Your task to perform on an android device: Open Google Chrome Image 0: 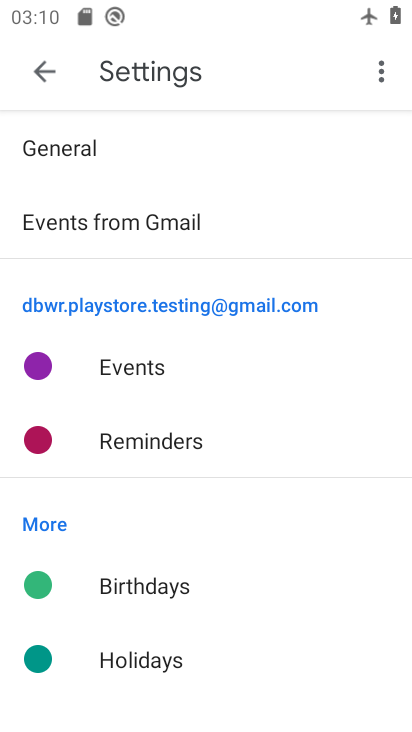
Step 0: press home button
Your task to perform on an android device: Open Google Chrome Image 1: 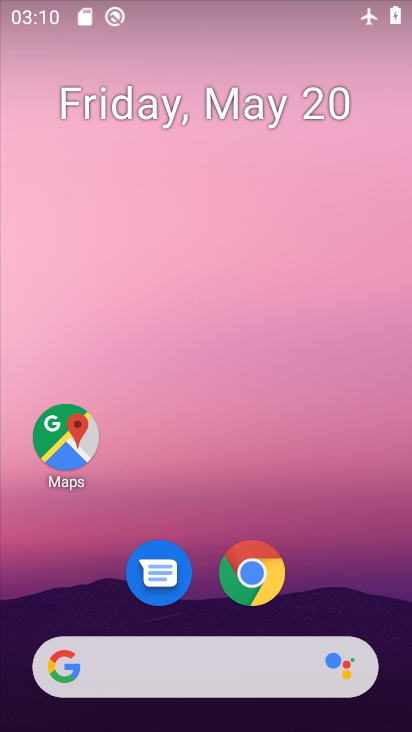
Step 1: click (259, 581)
Your task to perform on an android device: Open Google Chrome Image 2: 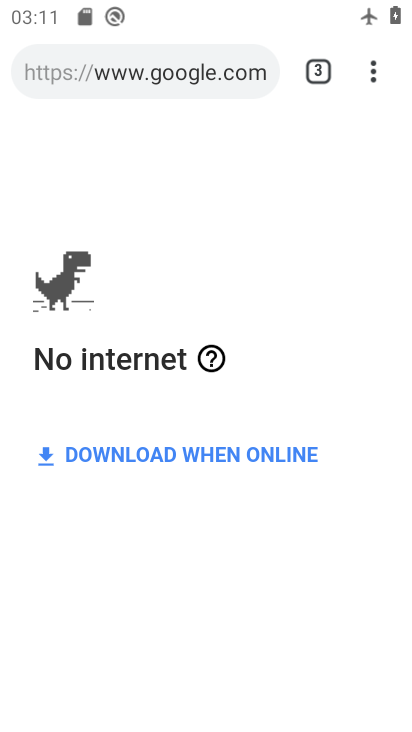
Step 2: task complete